Your task to perform on an android device: check battery use Image 0: 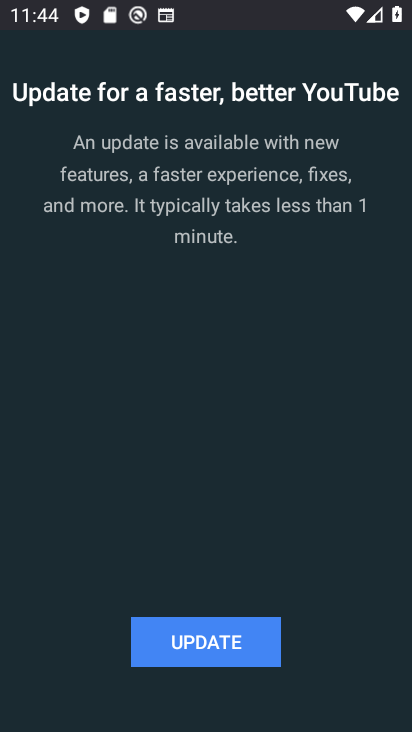
Step 0: press home button
Your task to perform on an android device: check battery use Image 1: 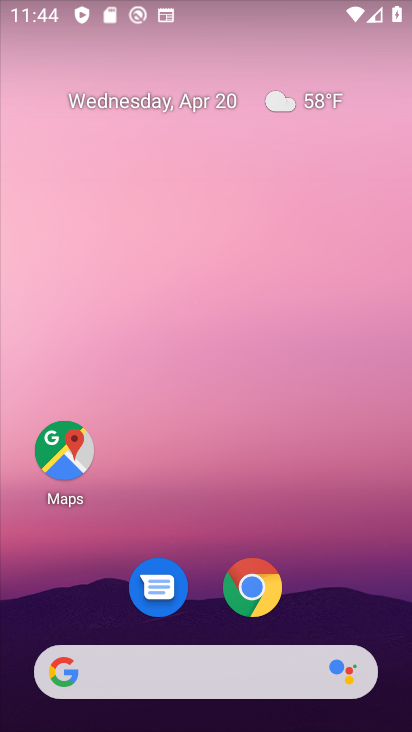
Step 1: drag from (162, 532) to (189, 86)
Your task to perform on an android device: check battery use Image 2: 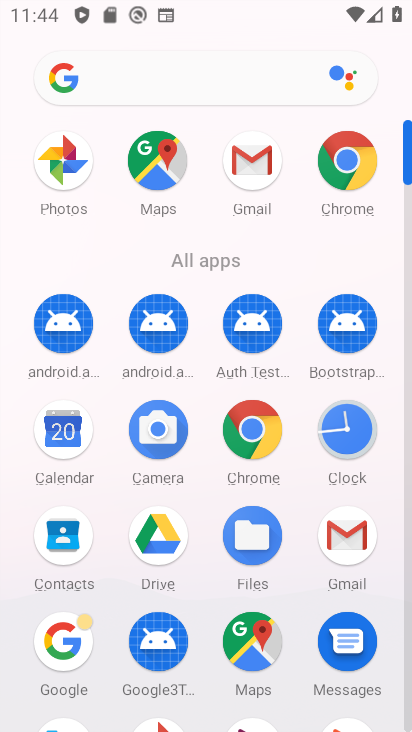
Step 2: drag from (228, 521) to (230, 64)
Your task to perform on an android device: check battery use Image 3: 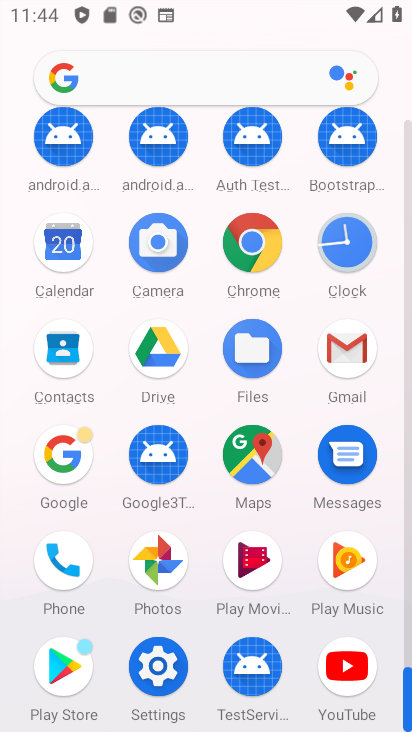
Step 3: click (150, 685)
Your task to perform on an android device: check battery use Image 4: 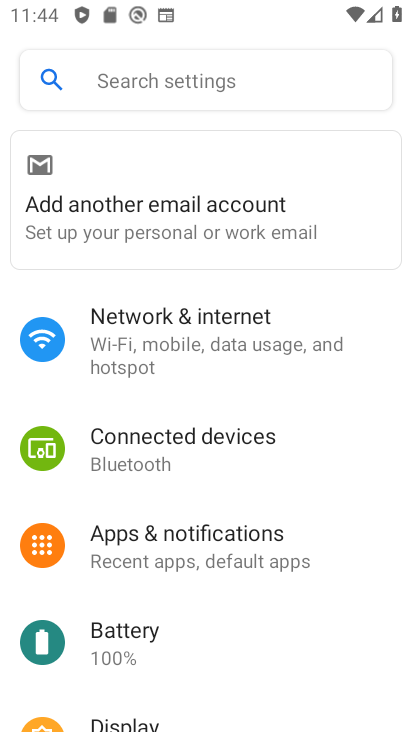
Step 4: click (153, 627)
Your task to perform on an android device: check battery use Image 5: 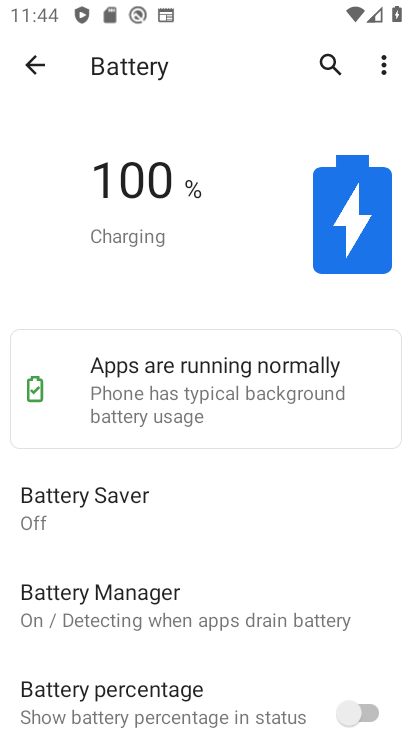
Step 5: click (392, 55)
Your task to perform on an android device: check battery use Image 6: 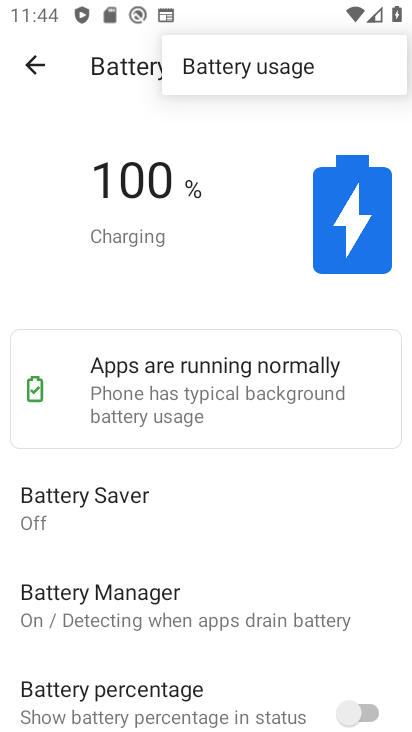
Step 6: click (315, 81)
Your task to perform on an android device: check battery use Image 7: 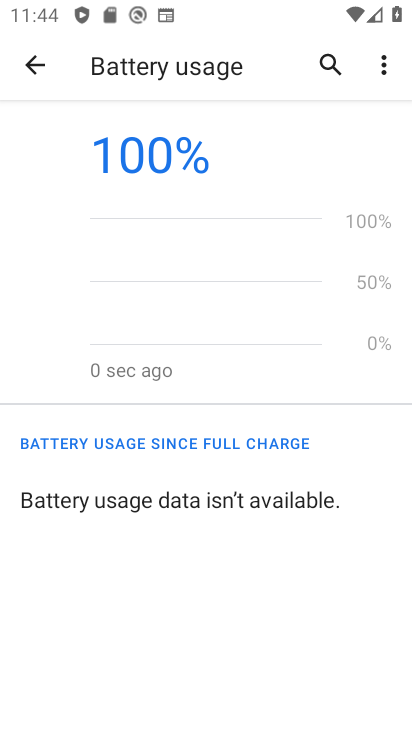
Step 7: task complete